Your task to perform on an android device: Turn on the flashlight Image 0: 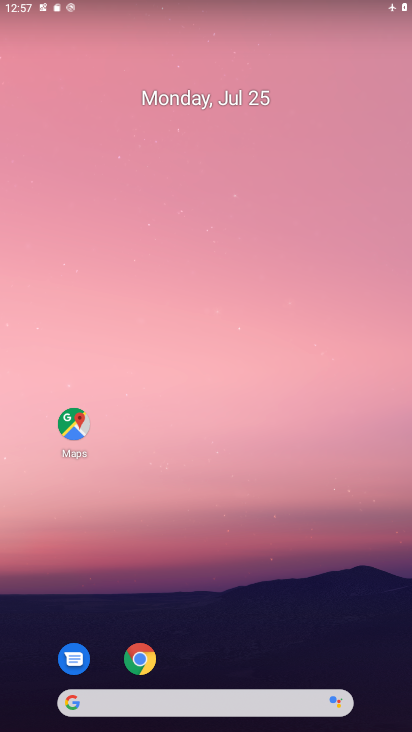
Step 0: drag from (225, 672) to (266, 150)
Your task to perform on an android device: Turn on the flashlight Image 1: 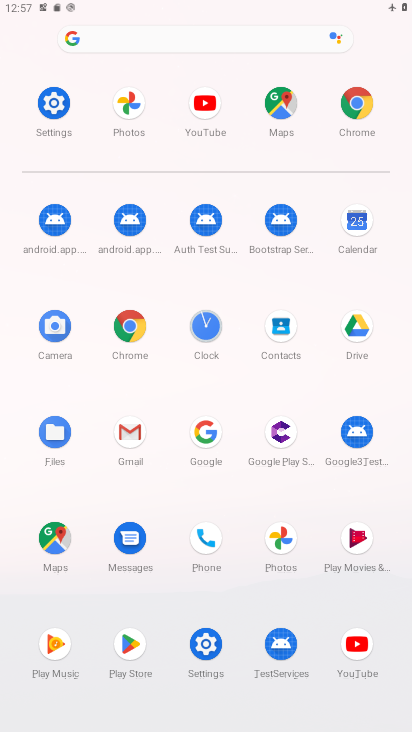
Step 1: click (35, 89)
Your task to perform on an android device: Turn on the flashlight Image 2: 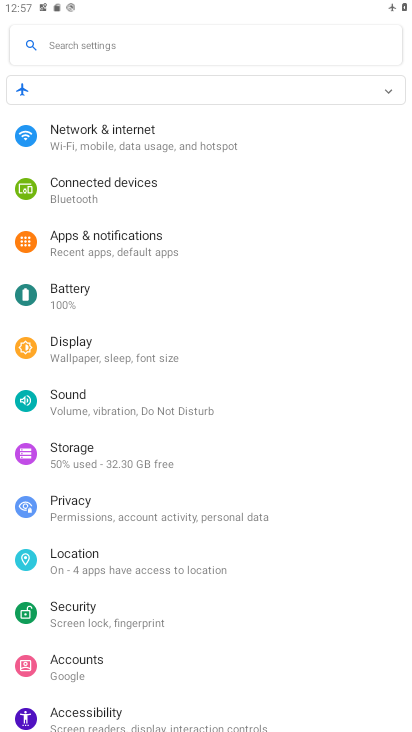
Step 2: click (89, 47)
Your task to perform on an android device: Turn on the flashlight Image 3: 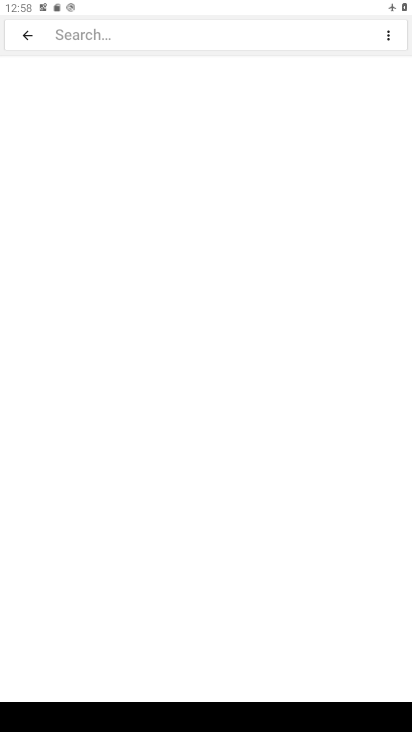
Step 3: type "flashlight"
Your task to perform on an android device: Turn on the flashlight Image 4: 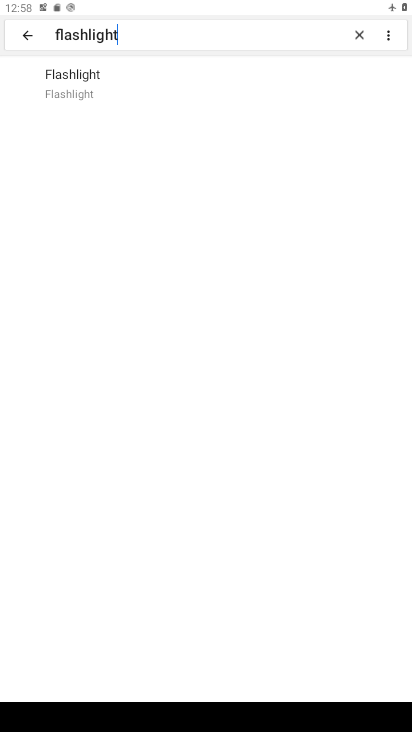
Step 4: click (101, 84)
Your task to perform on an android device: Turn on the flashlight Image 5: 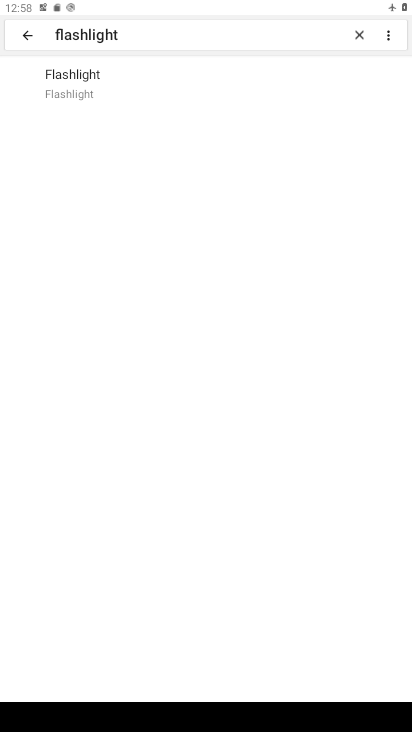
Step 5: task complete